Your task to perform on an android device: What is the recent news? Image 0: 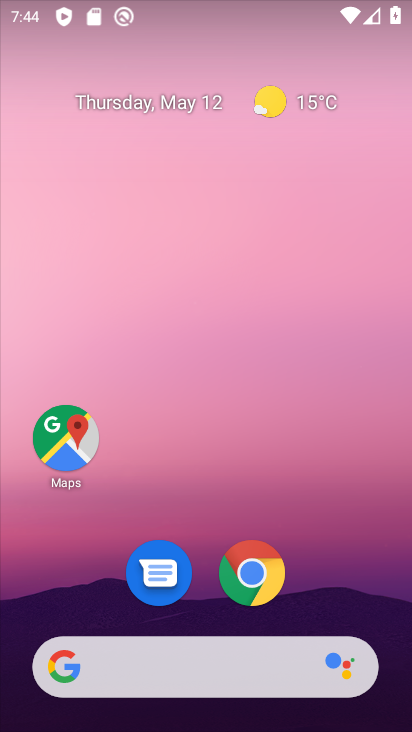
Step 0: drag from (8, 248) to (395, 475)
Your task to perform on an android device: What is the recent news? Image 1: 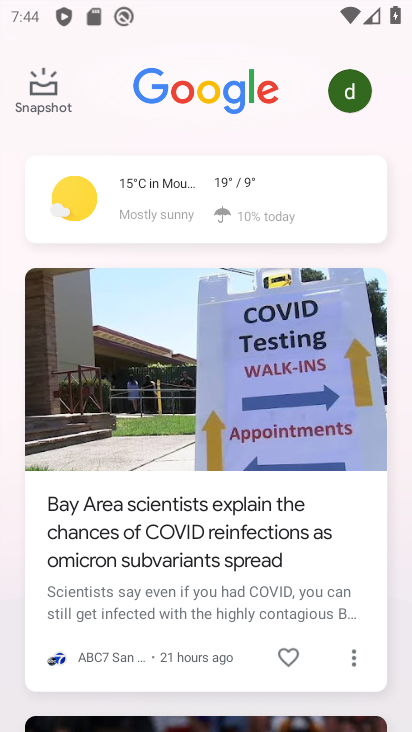
Step 1: task complete